Your task to perform on an android device: Go to ESPN.com Image 0: 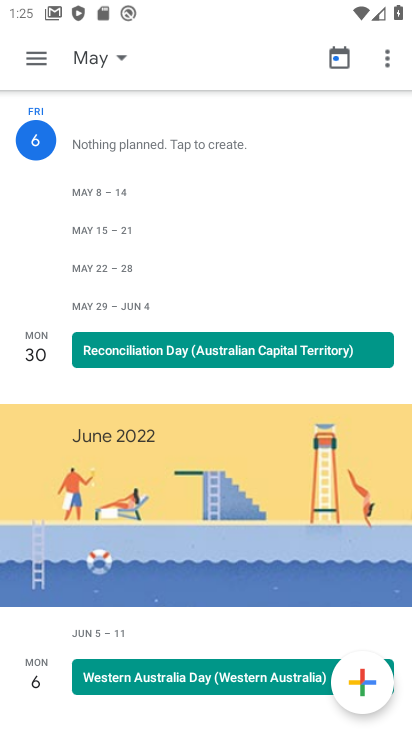
Step 0: press home button
Your task to perform on an android device: Go to ESPN.com Image 1: 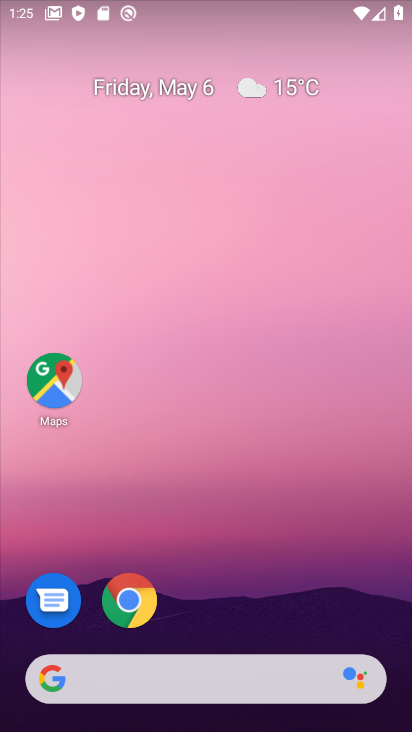
Step 1: drag from (220, 610) to (235, 19)
Your task to perform on an android device: Go to ESPN.com Image 2: 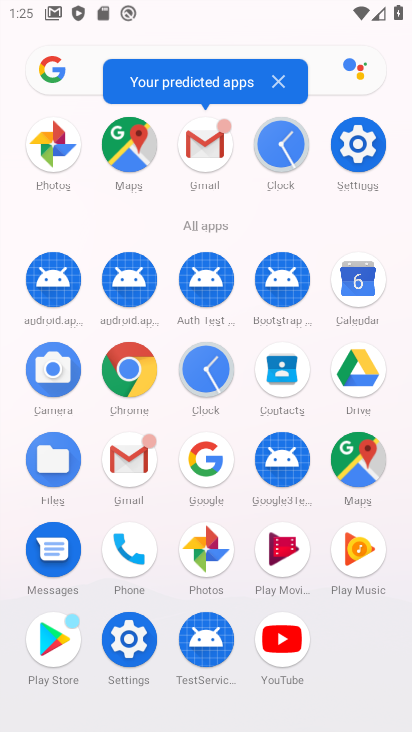
Step 2: click (211, 465)
Your task to perform on an android device: Go to ESPN.com Image 3: 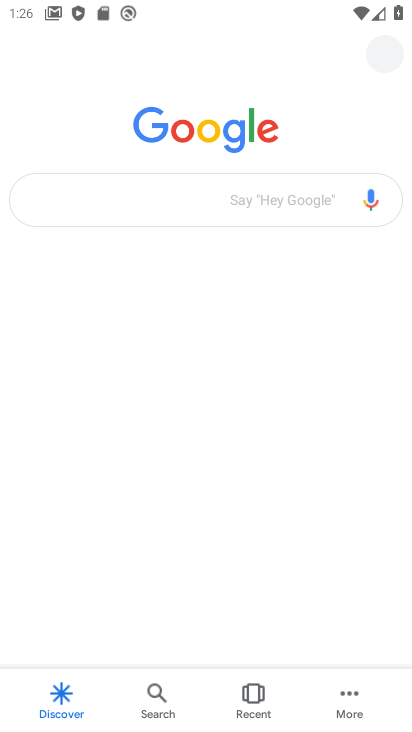
Step 3: click (193, 196)
Your task to perform on an android device: Go to ESPN.com Image 4: 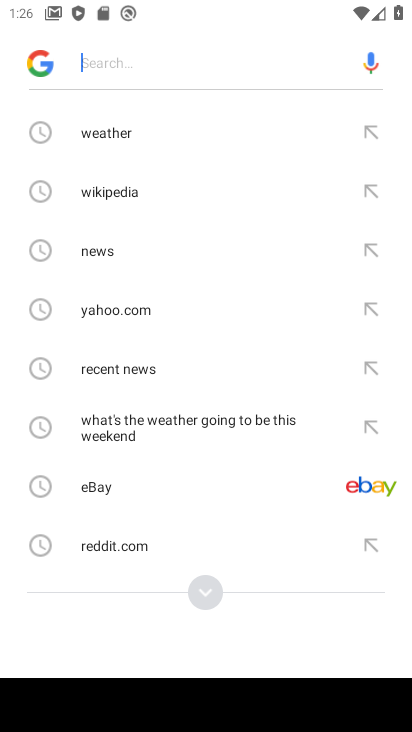
Step 4: type "espn.com"
Your task to perform on an android device: Go to ESPN.com Image 5: 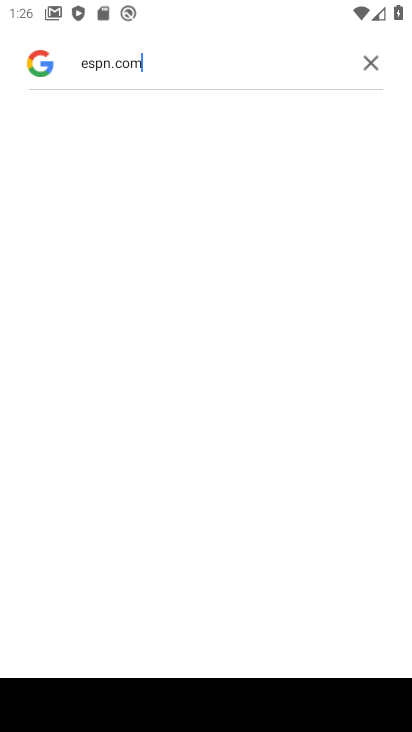
Step 5: click (140, 202)
Your task to perform on an android device: Go to ESPN.com Image 6: 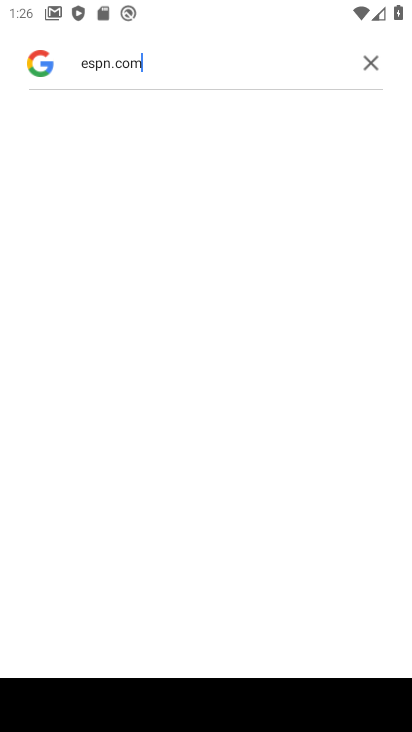
Step 6: click (179, 74)
Your task to perform on an android device: Go to ESPN.com Image 7: 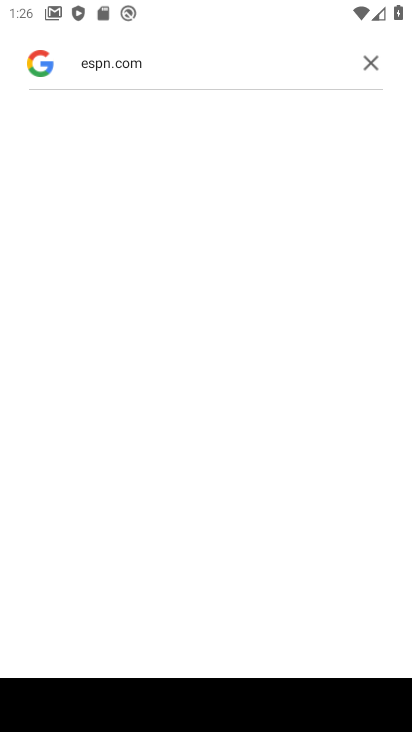
Step 7: click (364, 58)
Your task to perform on an android device: Go to ESPN.com Image 8: 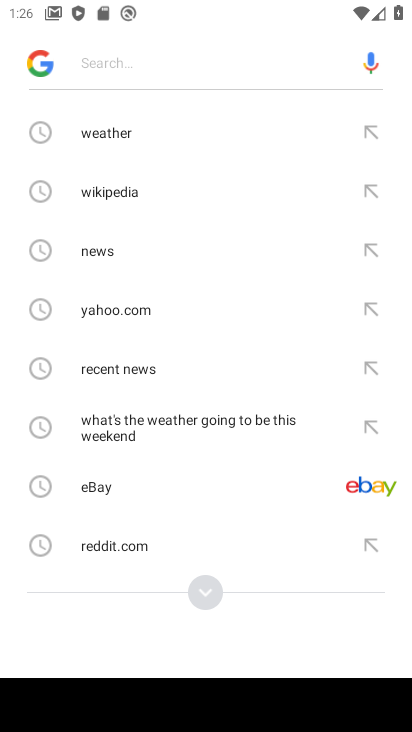
Step 8: type "espn.com"
Your task to perform on an android device: Go to ESPN.com Image 9: 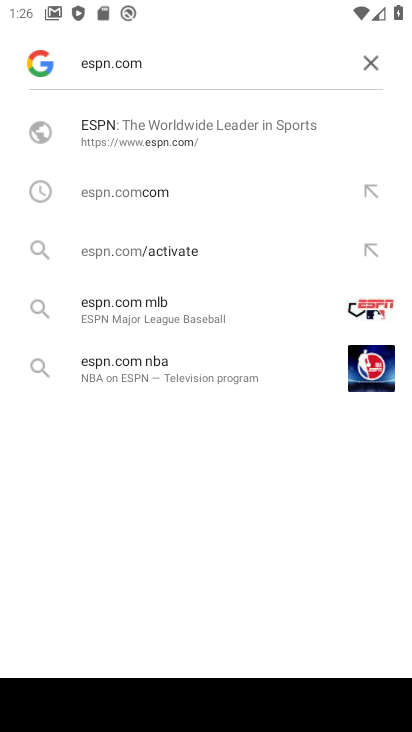
Step 9: click (179, 150)
Your task to perform on an android device: Go to ESPN.com Image 10: 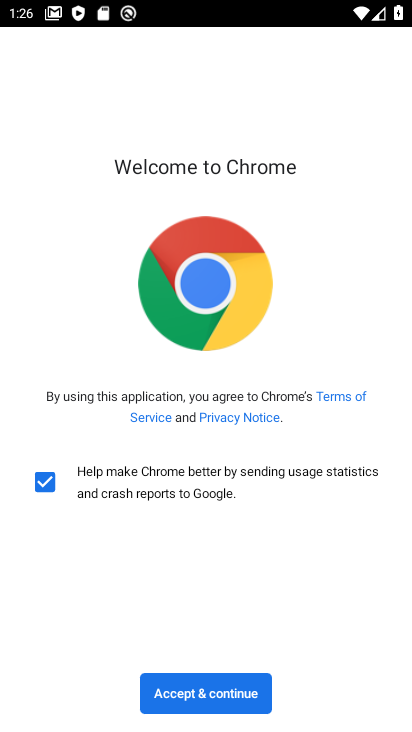
Step 10: click (207, 696)
Your task to perform on an android device: Go to ESPN.com Image 11: 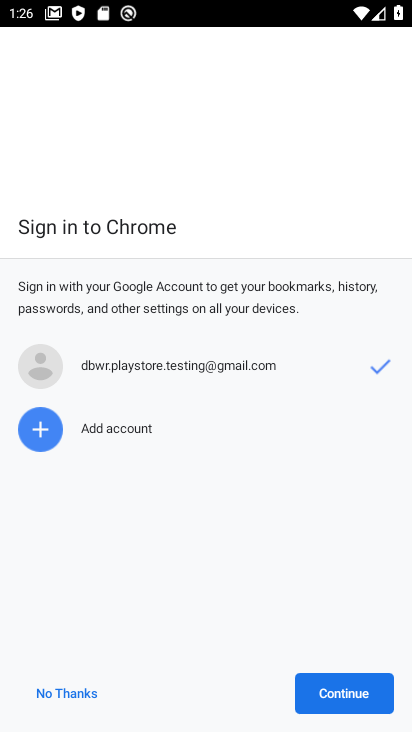
Step 11: click (296, 681)
Your task to perform on an android device: Go to ESPN.com Image 12: 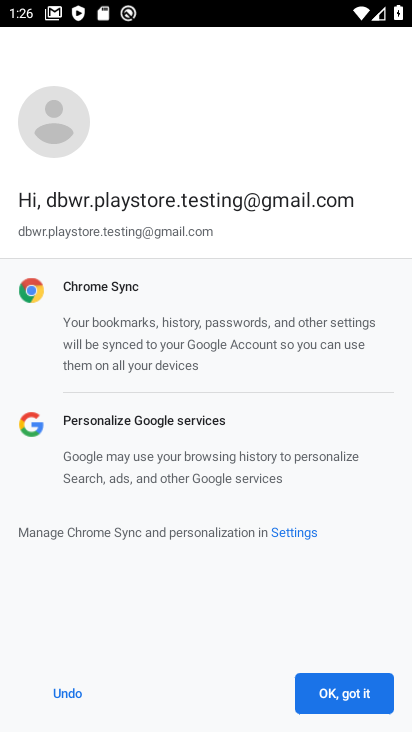
Step 12: click (318, 685)
Your task to perform on an android device: Go to ESPN.com Image 13: 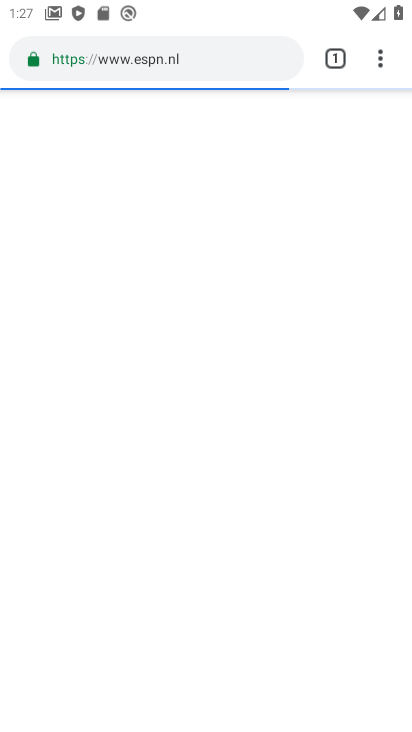
Step 13: task complete